Your task to perform on an android device: Is it going to rain this weekend? Image 0: 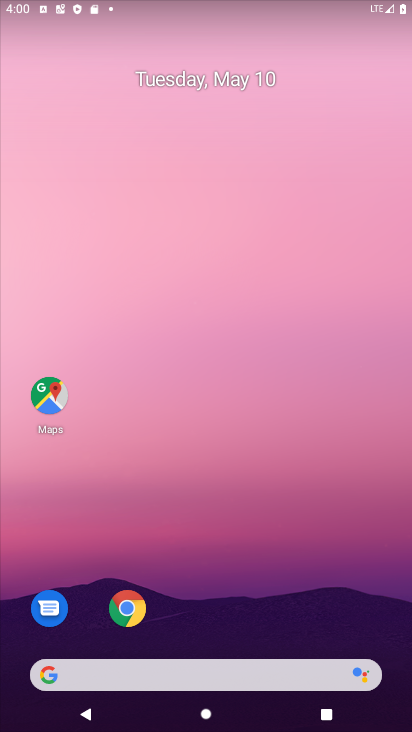
Step 0: drag from (394, 645) to (252, 94)
Your task to perform on an android device: Is it going to rain this weekend? Image 1: 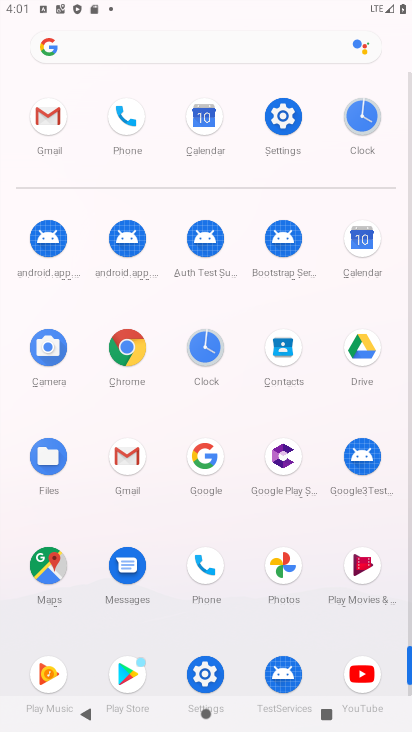
Step 1: press back button
Your task to perform on an android device: Is it going to rain this weekend? Image 2: 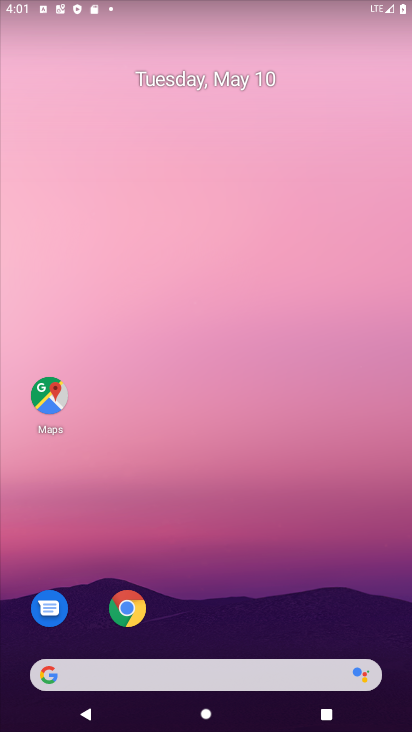
Step 2: drag from (6, 179) to (385, 209)
Your task to perform on an android device: Is it going to rain this weekend? Image 3: 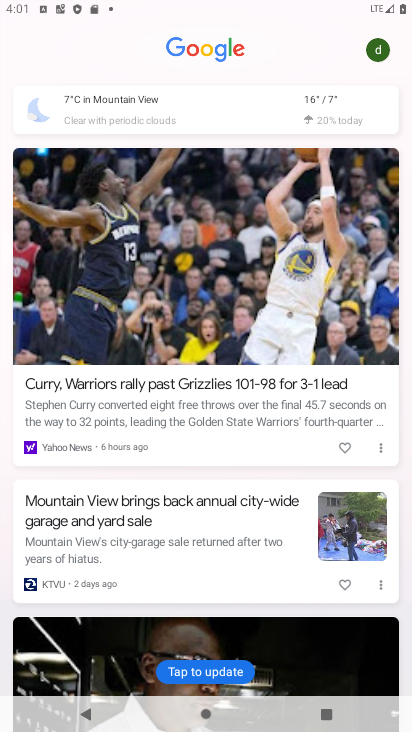
Step 3: click (319, 100)
Your task to perform on an android device: Is it going to rain this weekend? Image 4: 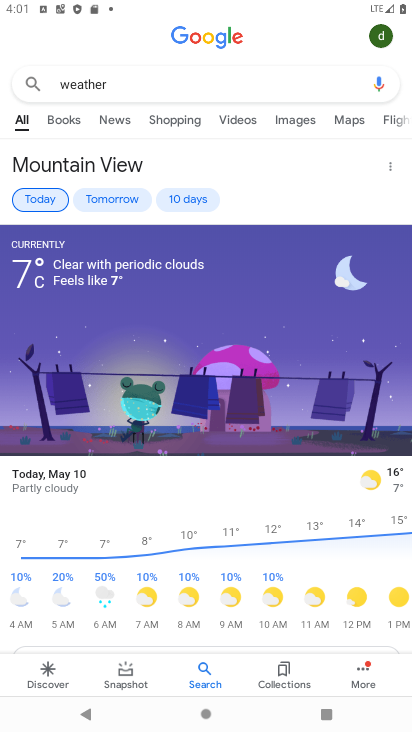
Step 4: click (176, 196)
Your task to perform on an android device: Is it going to rain this weekend? Image 5: 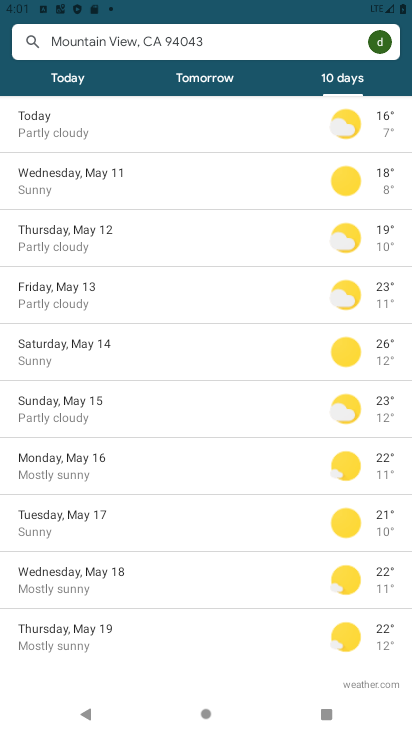
Step 5: task complete